Your task to perform on an android device: Open calendar and show me the third week of next month Image 0: 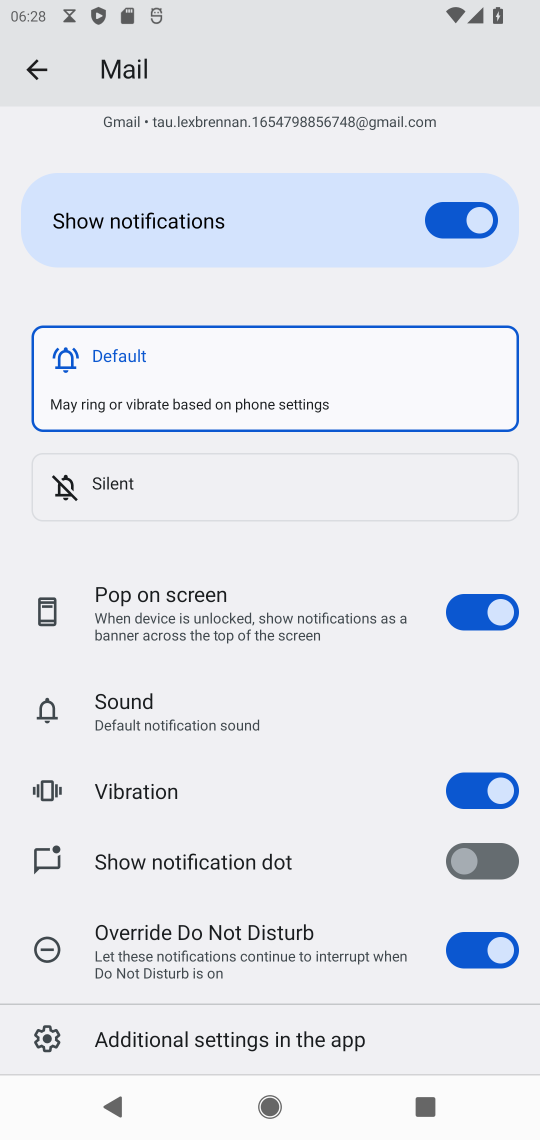
Step 0: press home button
Your task to perform on an android device: Open calendar and show me the third week of next month Image 1: 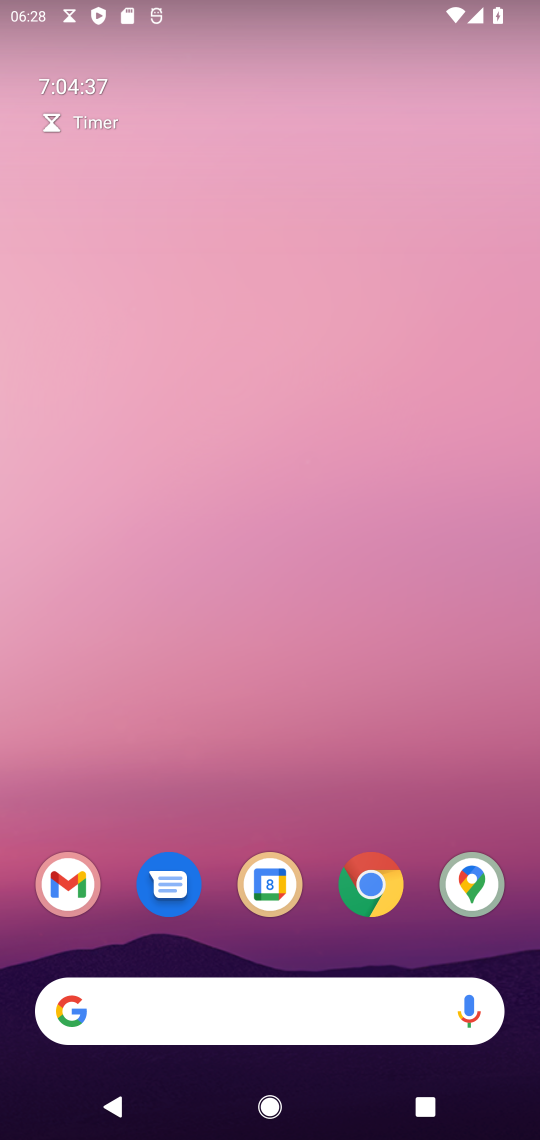
Step 1: drag from (412, 837) to (352, 295)
Your task to perform on an android device: Open calendar and show me the third week of next month Image 2: 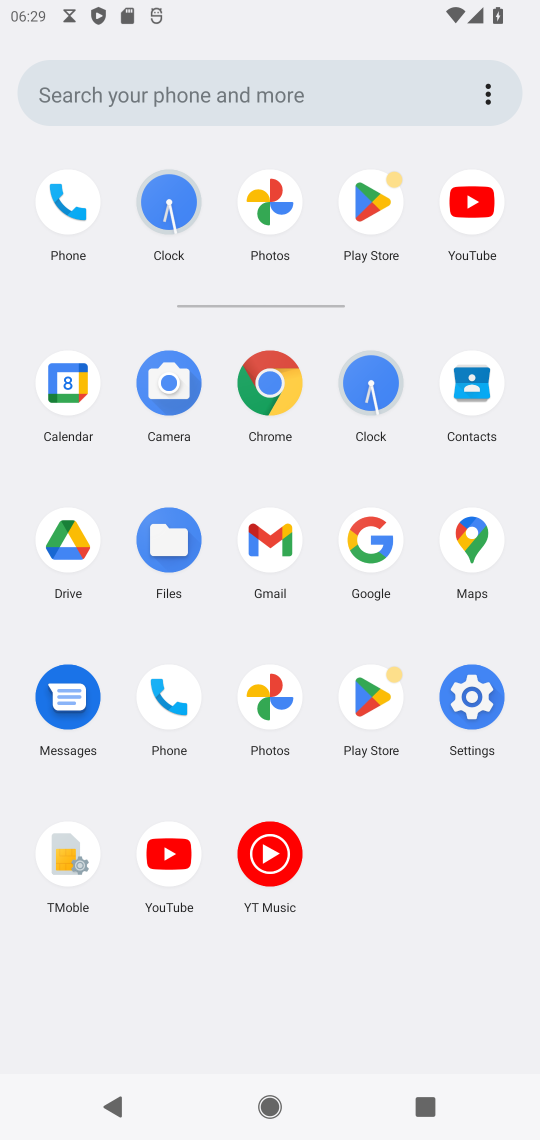
Step 2: click (75, 405)
Your task to perform on an android device: Open calendar and show me the third week of next month Image 3: 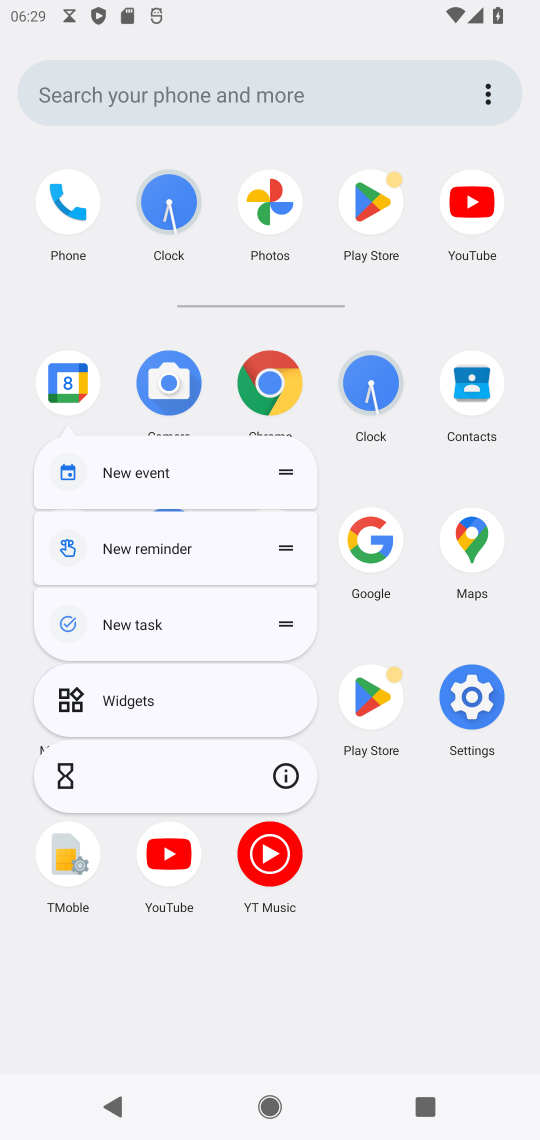
Step 3: click (72, 397)
Your task to perform on an android device: Open calendar and show me the third week of next month Image 4: 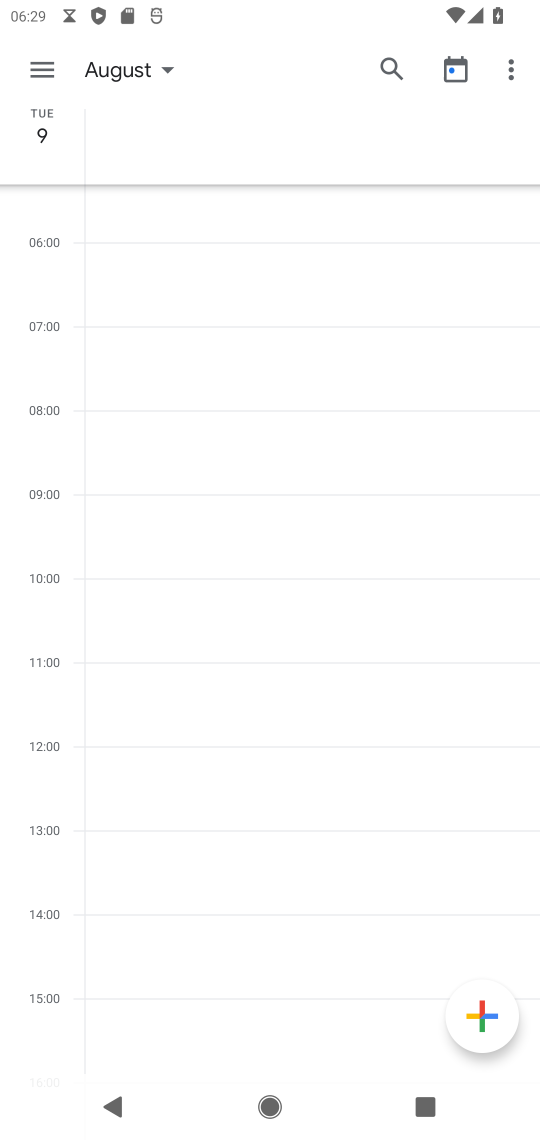
Step 4: click (44, 76)
Your task to perform on an android device: Open calendar and show me the third week of next month Image 5: 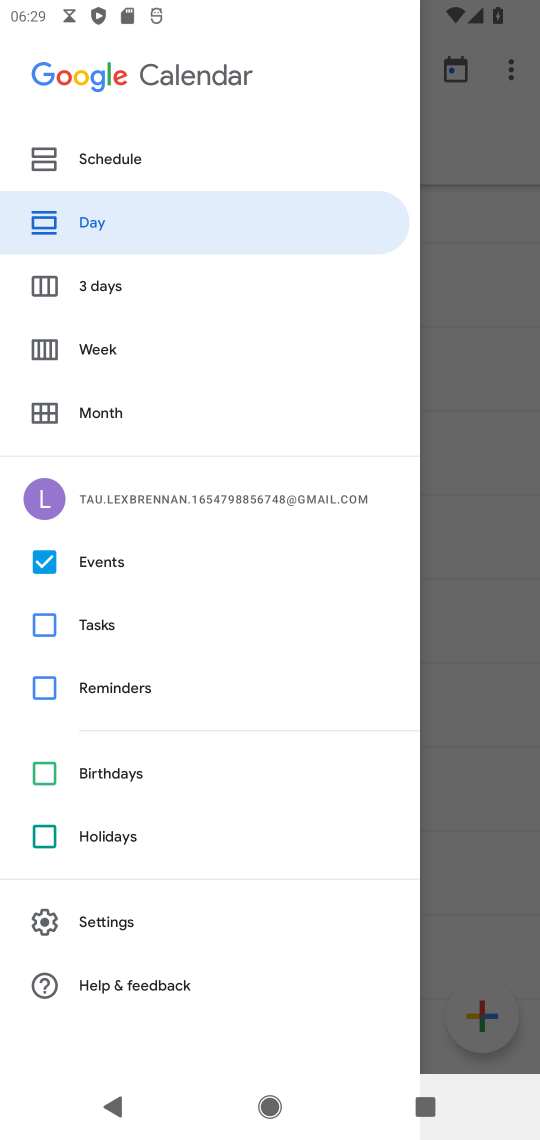
Step 5: click (109, 351)
Your task to perform on an android device: Open calendar and show me the third week of next month Image 6: 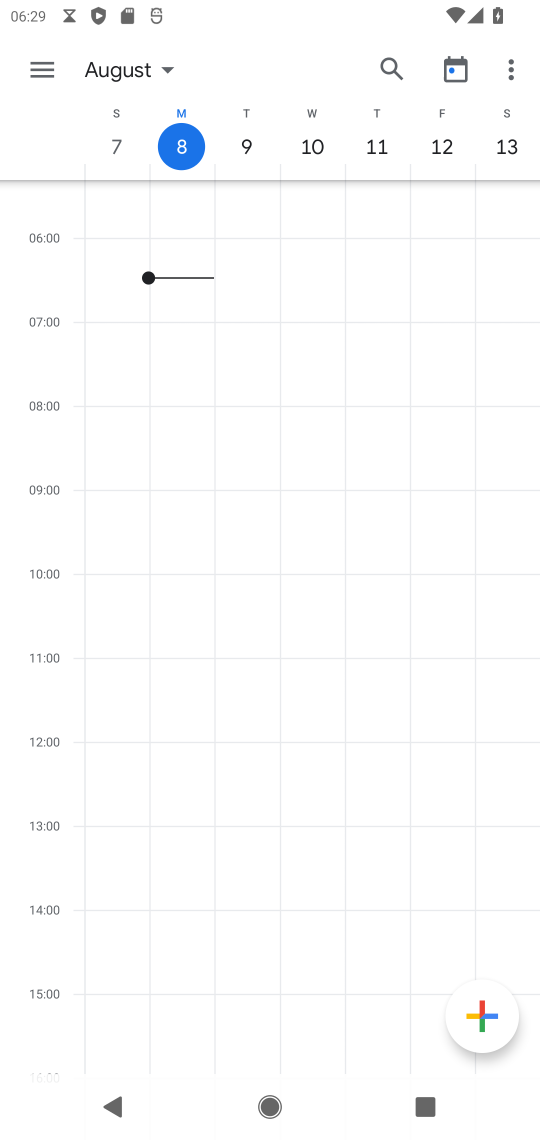
Step 6: click (162, 71)
Your task to perform on an android device: Open calendar and show me the third week of next month Image 7: 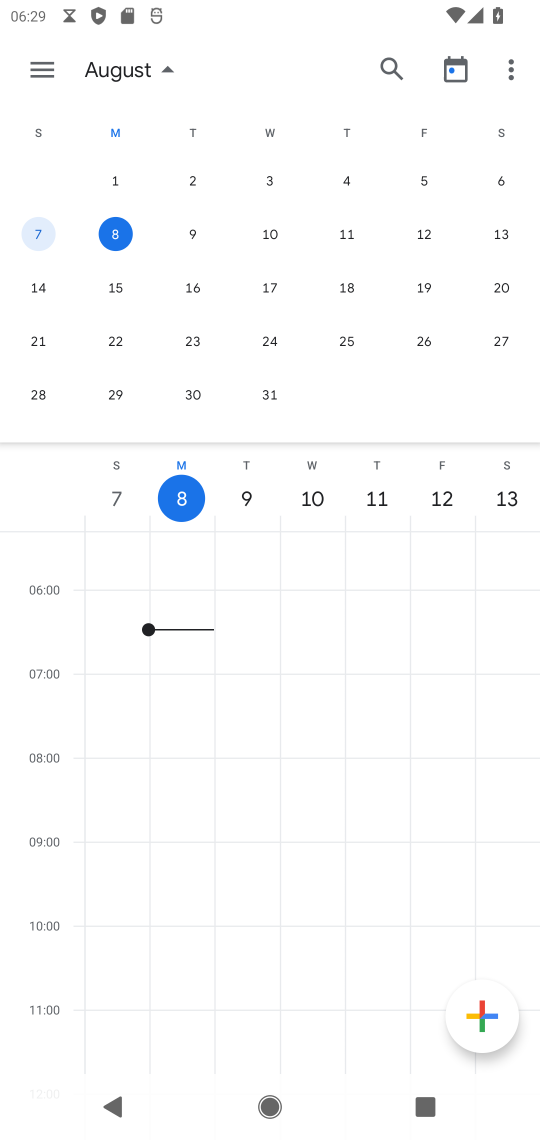
Step 7: drag from (520, 316) to (97, 327)
Your task to perform on an android device: Open calendar and show me the third week of next month Image 8: 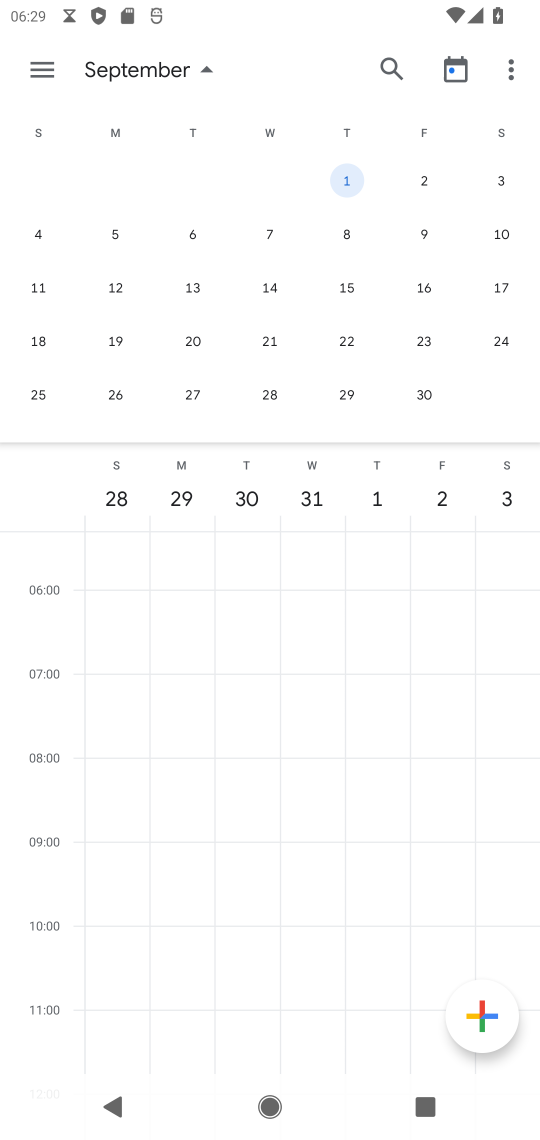
Step 8: click (350, 345)
Your task to perform on an android device: Open calendar and show me the third week of next month Image 9: 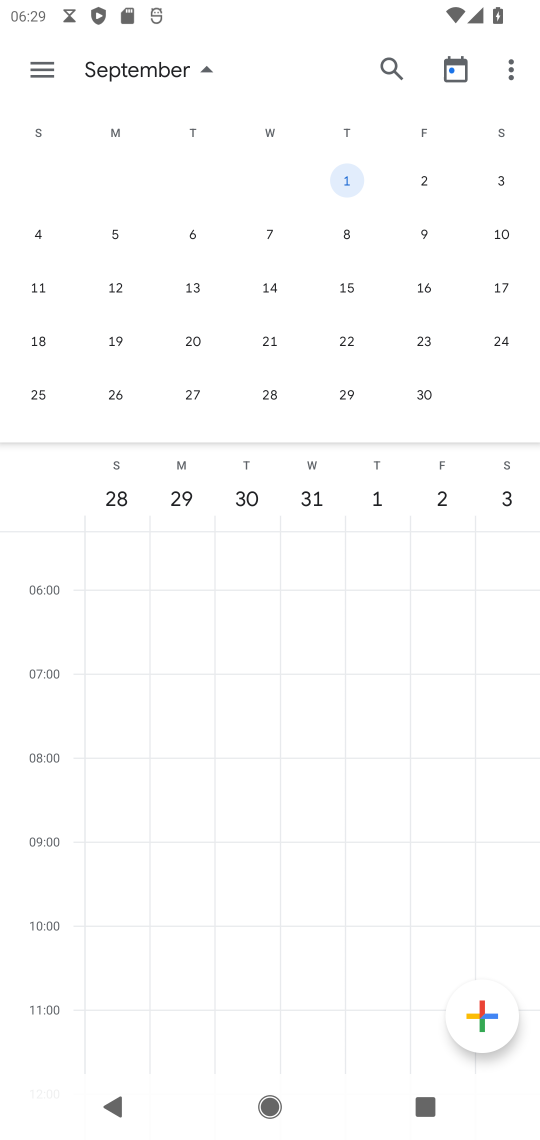
Step 9: click (336, 339)
Your task to perform on an android device: Open calendar and show me the third week of next month Image 10: 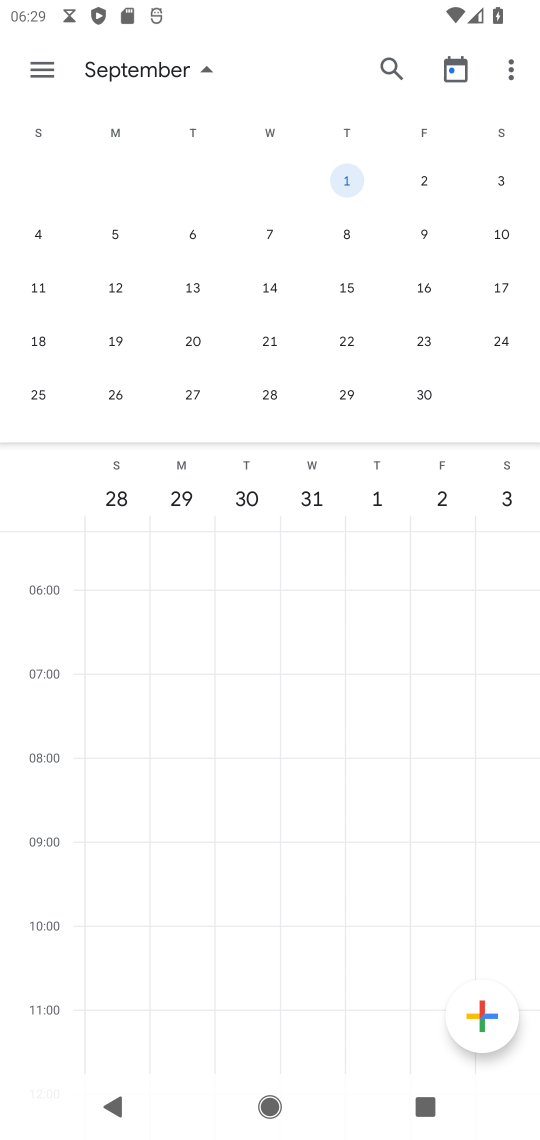
Step 10: click (337, 340)
Your task to perform on an android device: Open calendar and show me the third week of next month Image 11: 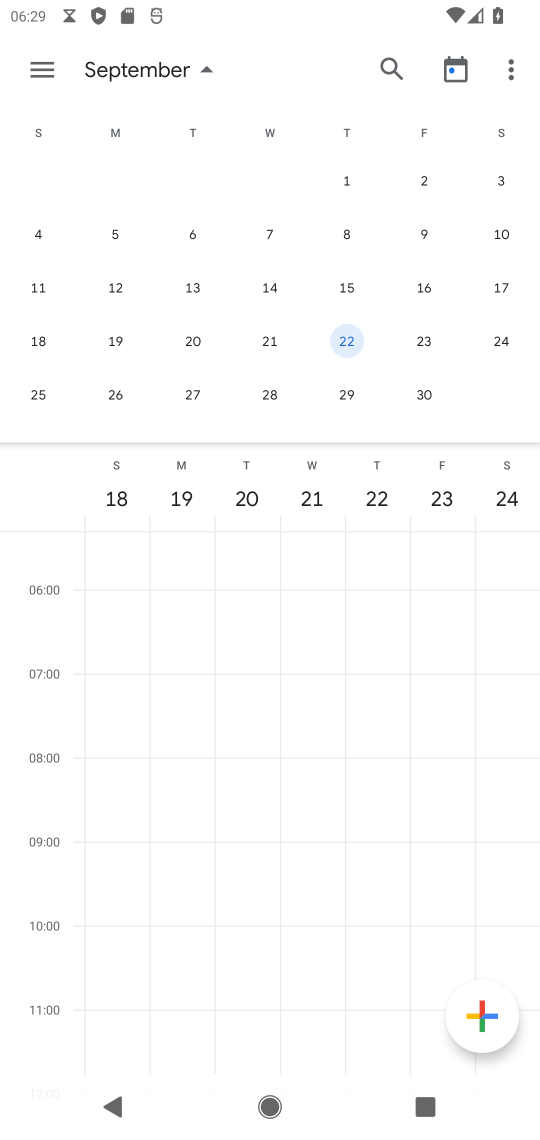
Step 11: task complete